Your task to perform on an android device: turn off picture-in-picture Image 0: 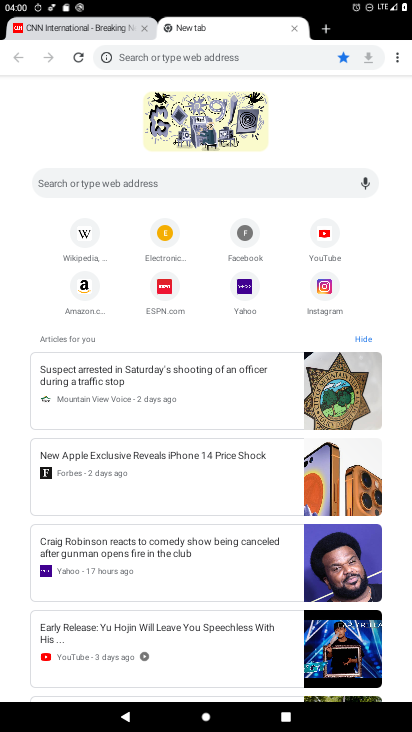
Step 0: press home button
Your task to perform on an android device: turn off picture-in-picture Image 1: 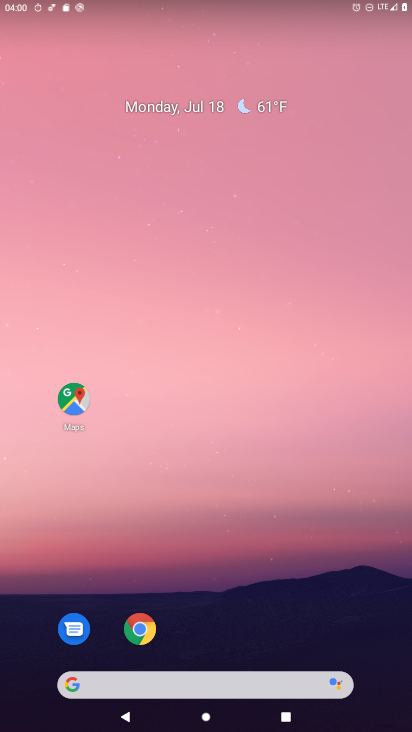
Step 1: click (141, 631)
Your task to perform on an android device: turn off picture-in-picture Image 2: 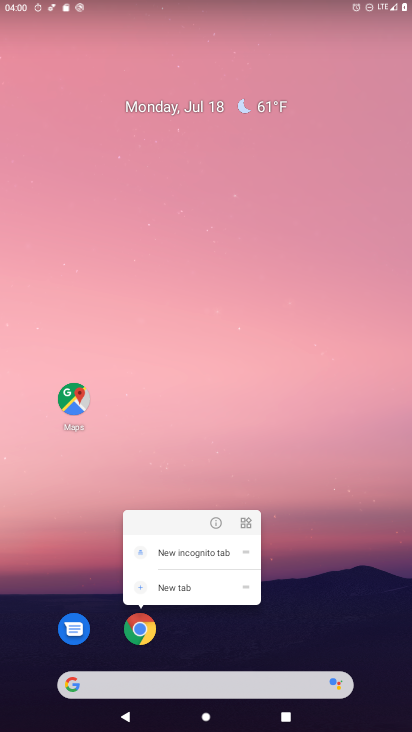
Step 2: click (217, 522)
Your task to perform on an android device: turn off picture-in-picture Image 3: 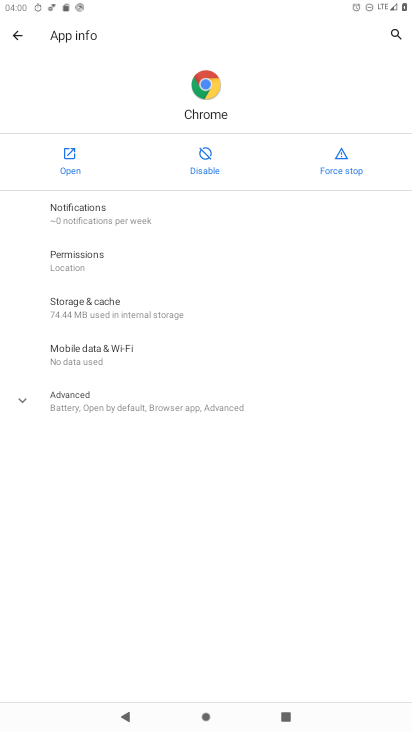
Step 3: click (114, 408)
Your task to perform on an android device: turn off picture-in-picture Image 4: 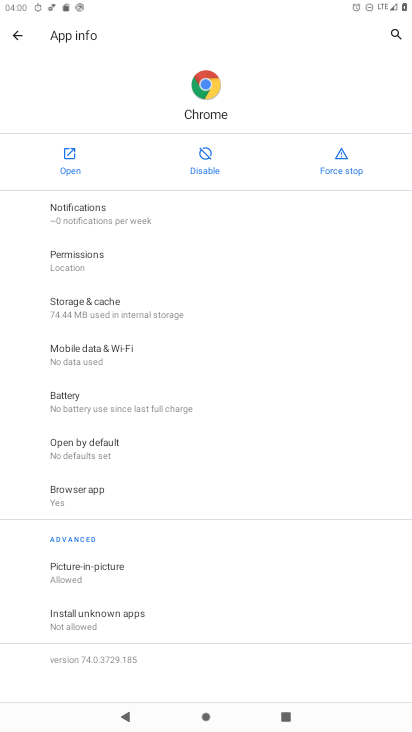
Step 4: click (109, 569)
Your task to perform on an android device: turn off picture-in-picture Image 5: 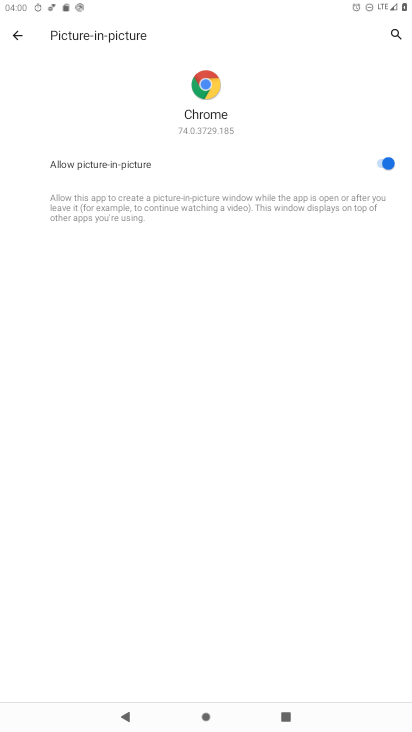
Step 5: click (377, 163)
Your task to perform on an android device: turn off picture-in-picture Image 6: 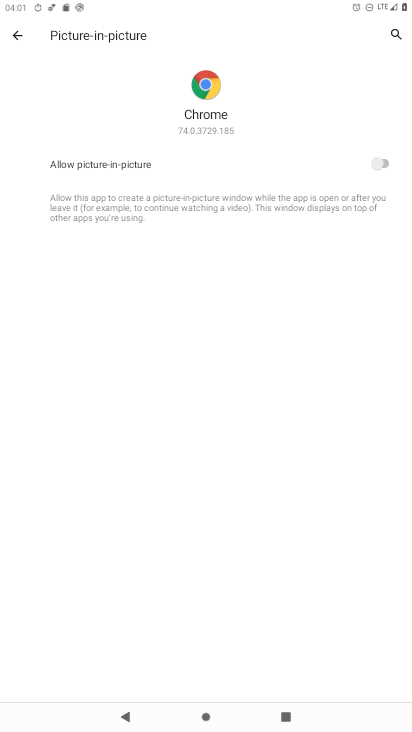
Step 6: task complete